Your task to perform on an android device: open app "DoorDash - Food Delivery" (install if not already installed) Image 0: 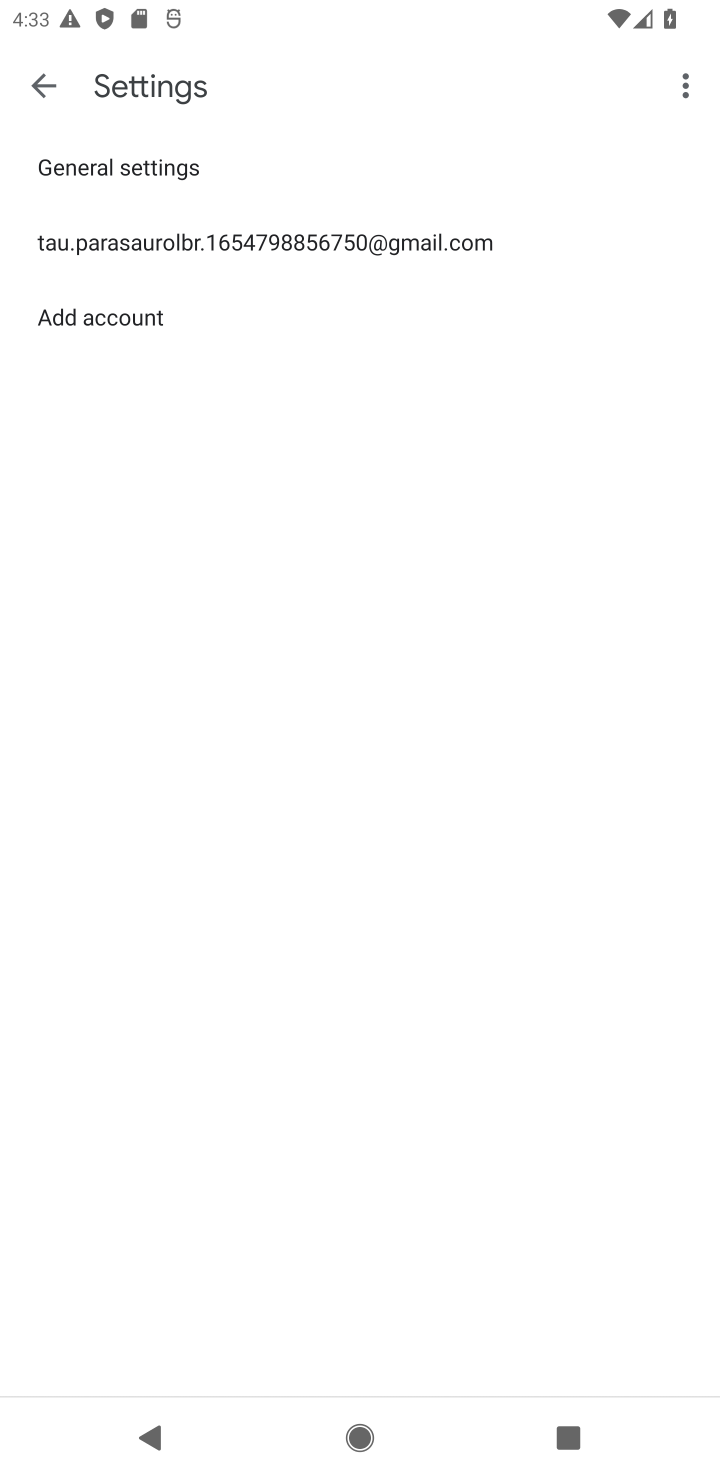
Step 0: press home button
Your task to perform on an android device: open app "DoorDash - Food Delivery" (install if not already installed) Image 1: 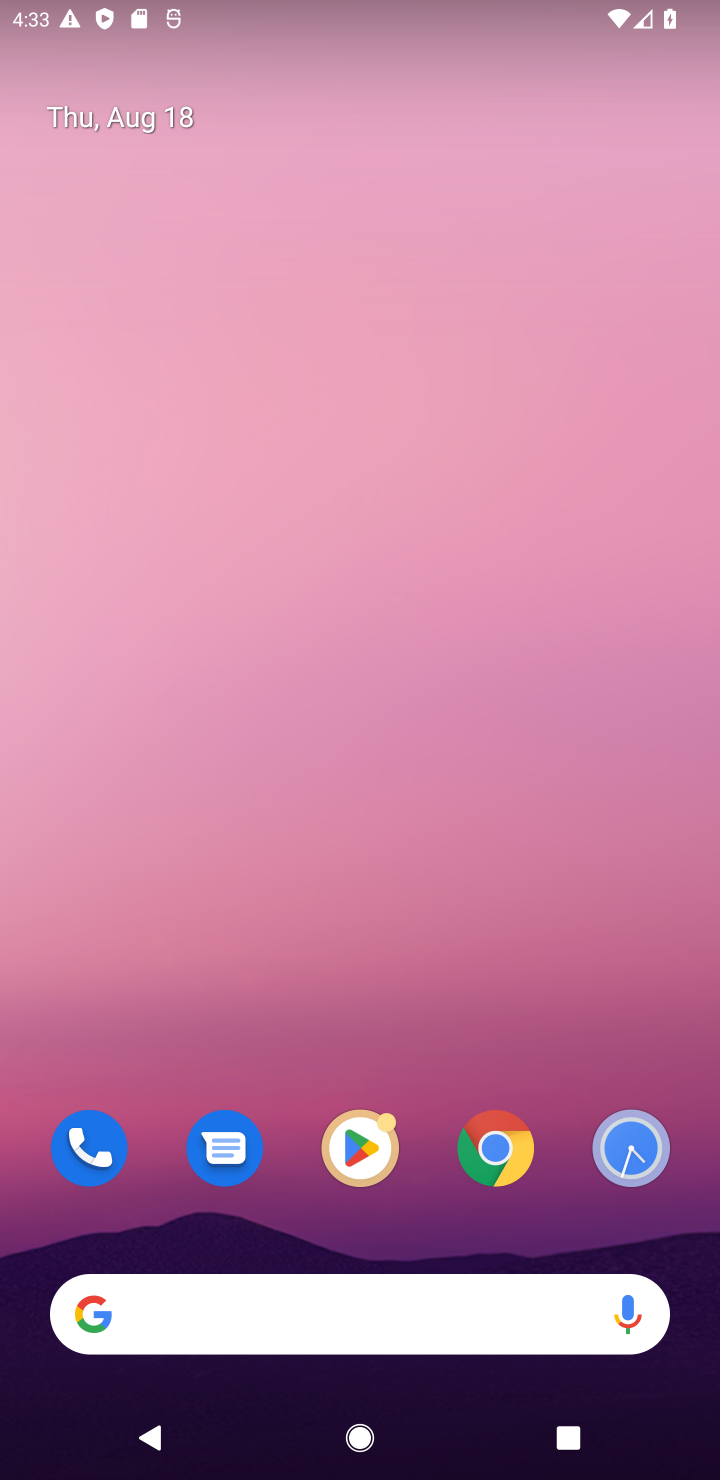
Step 1: drag from (524, 464) to (639, 0)
Your task to perform on an android device: open app "DoorDash - Food Delivery" (install if not already installed) Image 2: 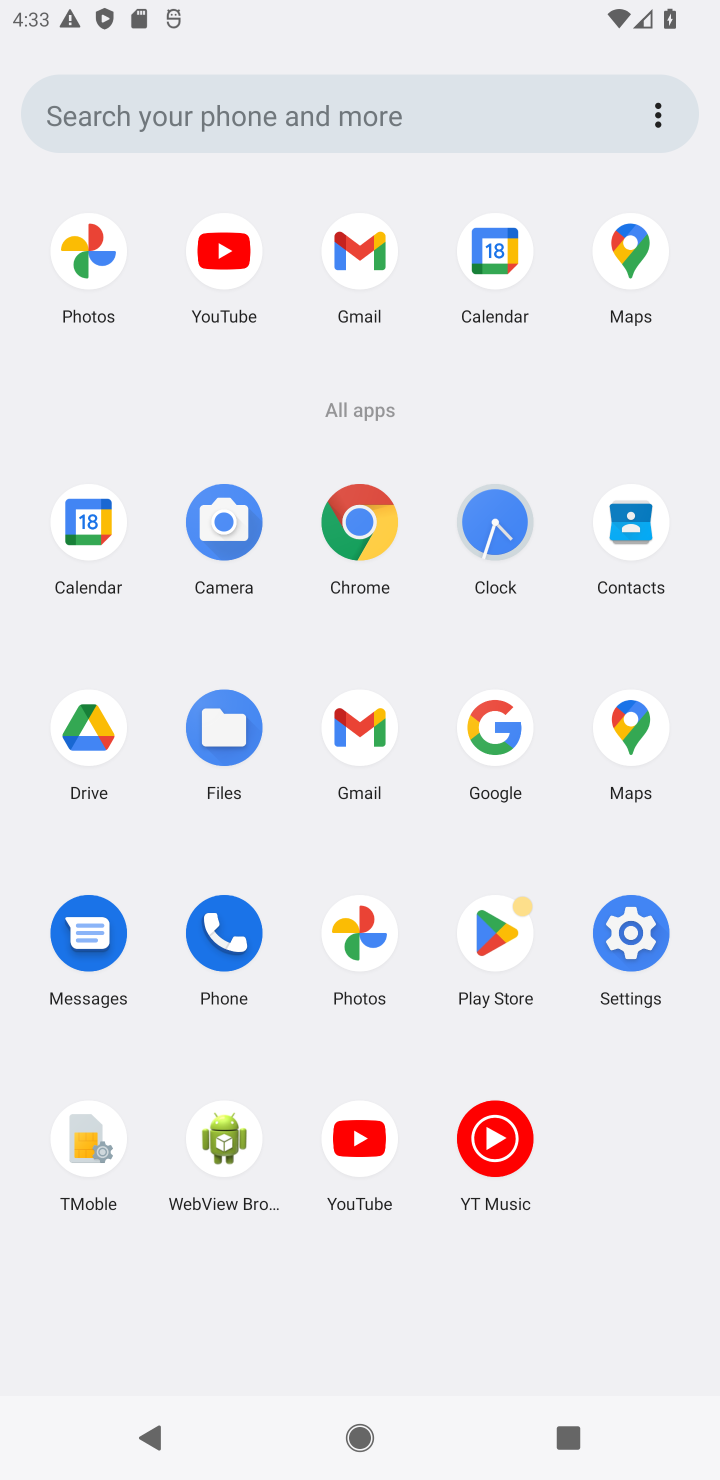
Step 2: click (502, 931)
Your task to perform on an android device: open app "DoorDash - Food Delivery" (install if not already installed) Image 3: 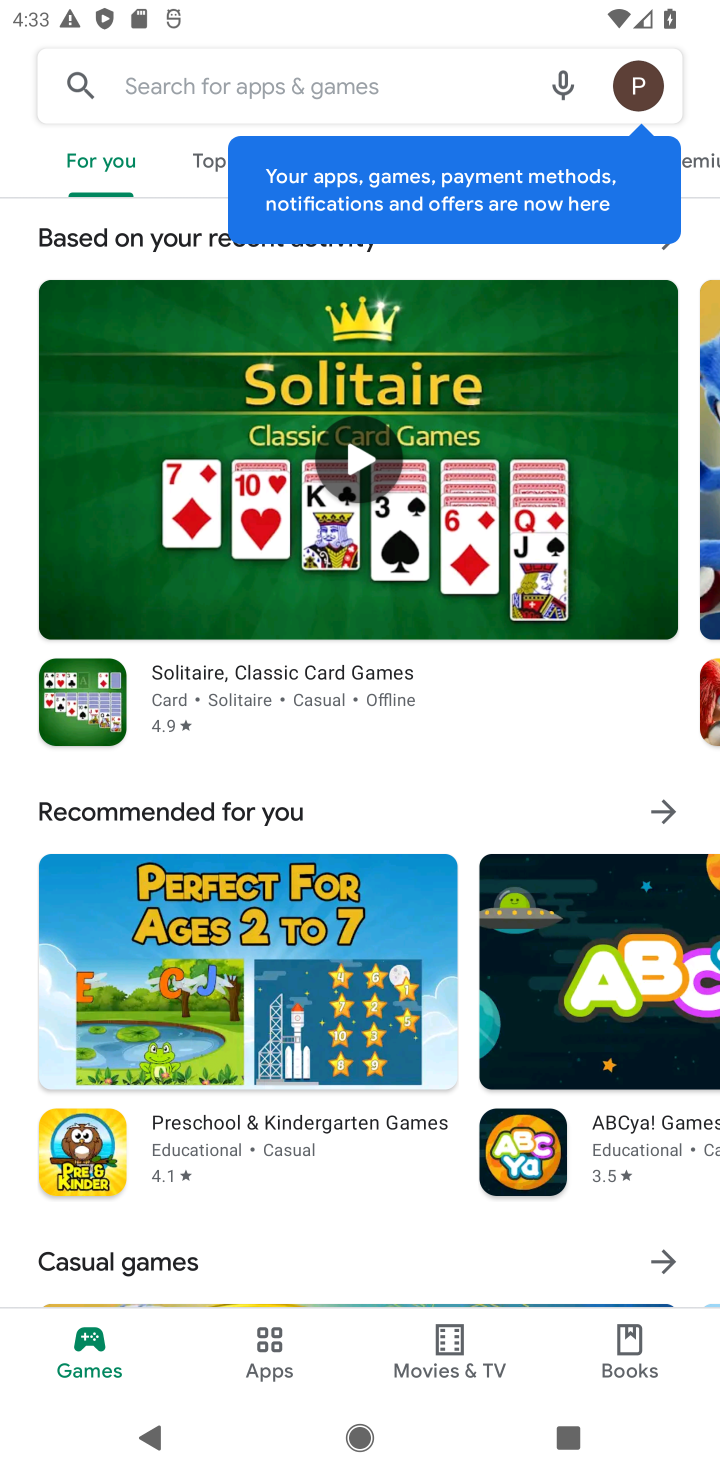
Step 3: click (216, 59)
Your task to perform on an android device: open app "DoorDash - Food Delivery" (install if not already installed) Image 4: 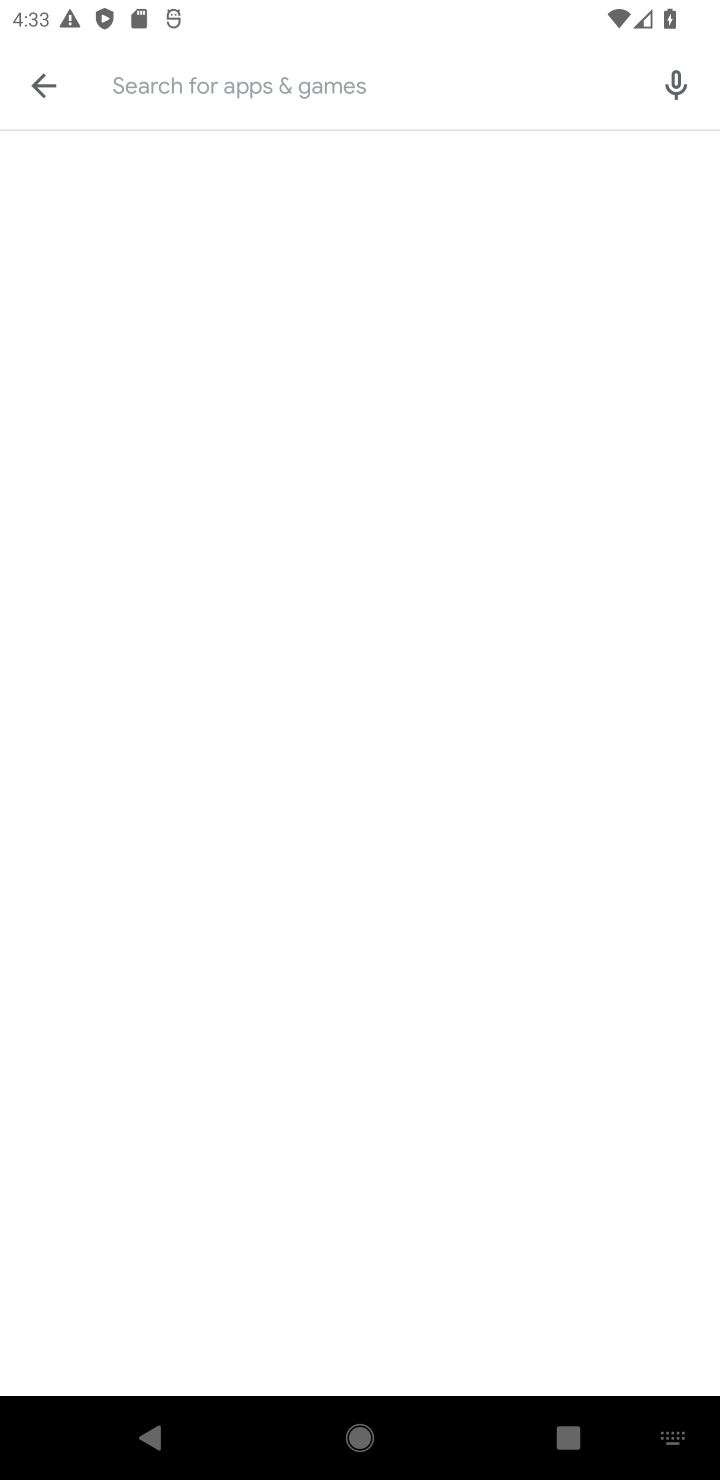
Step 4: type "DoorDash - Food Delivery"
Your task to perform on an android device: open app "DoorDash - Food Delivery" (install if not already installed) Image 5: 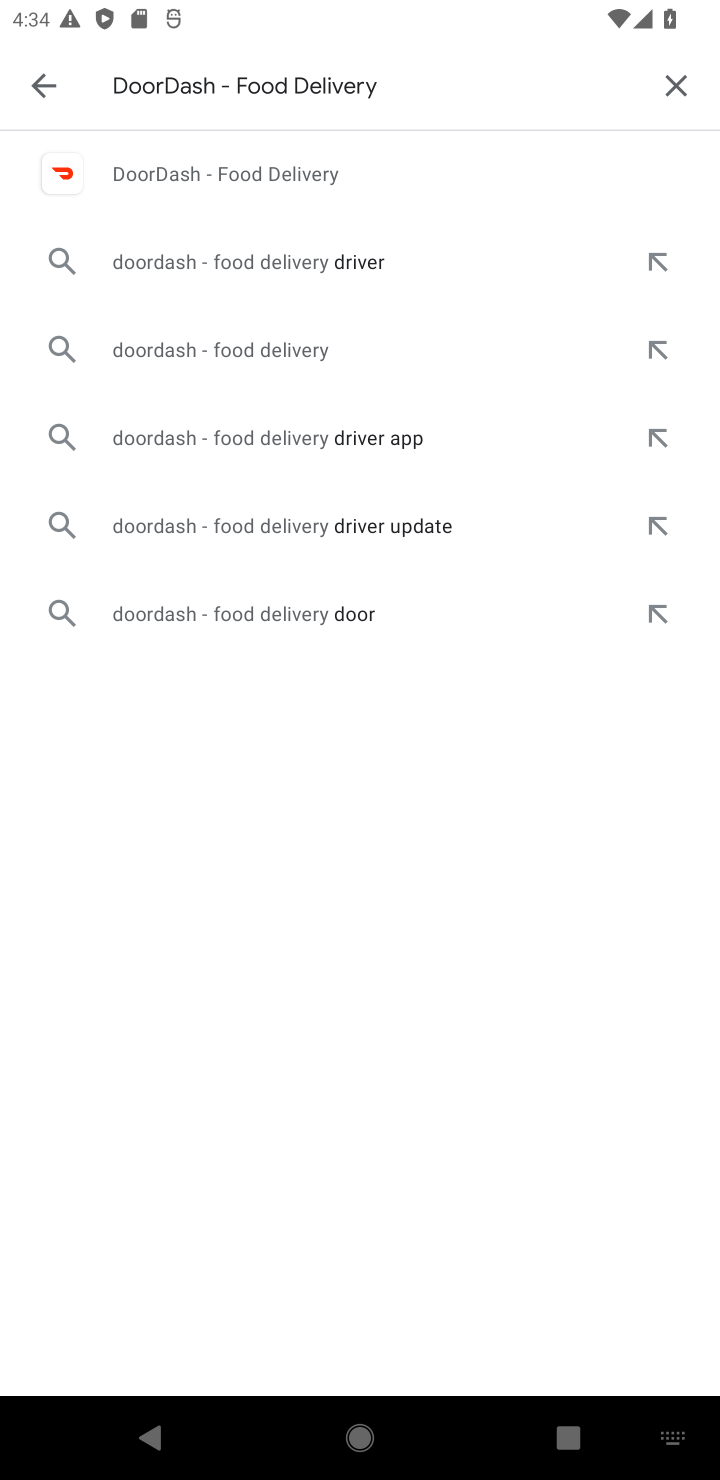
Step 5: click (289, 173)
Your task to perform on an android device: open app "DoorDash - Food Delivery" (install if not already installed) Image 6: 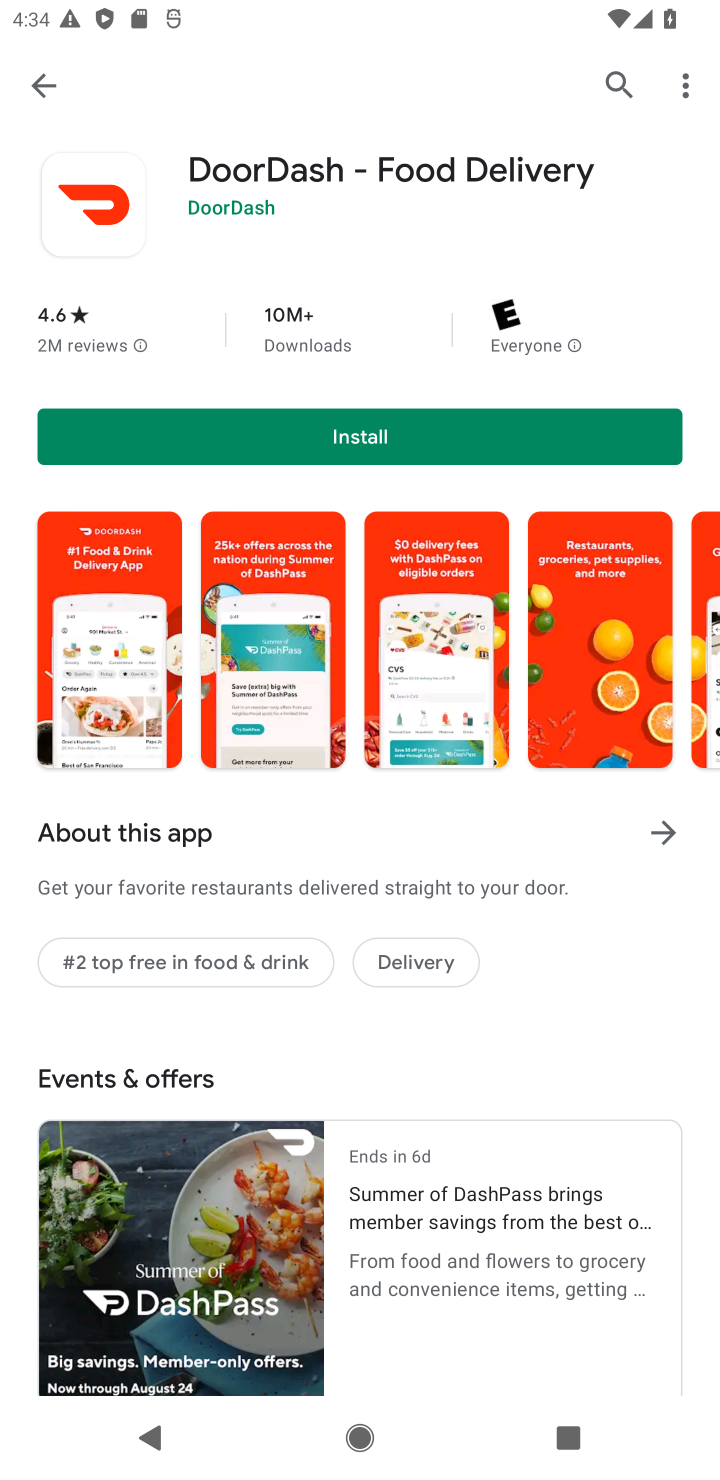
Step 6: click (350, 442)
Your task to perform on an android device: open app "DoorDash - Food Delivery" (install if not already installed) Image 7: 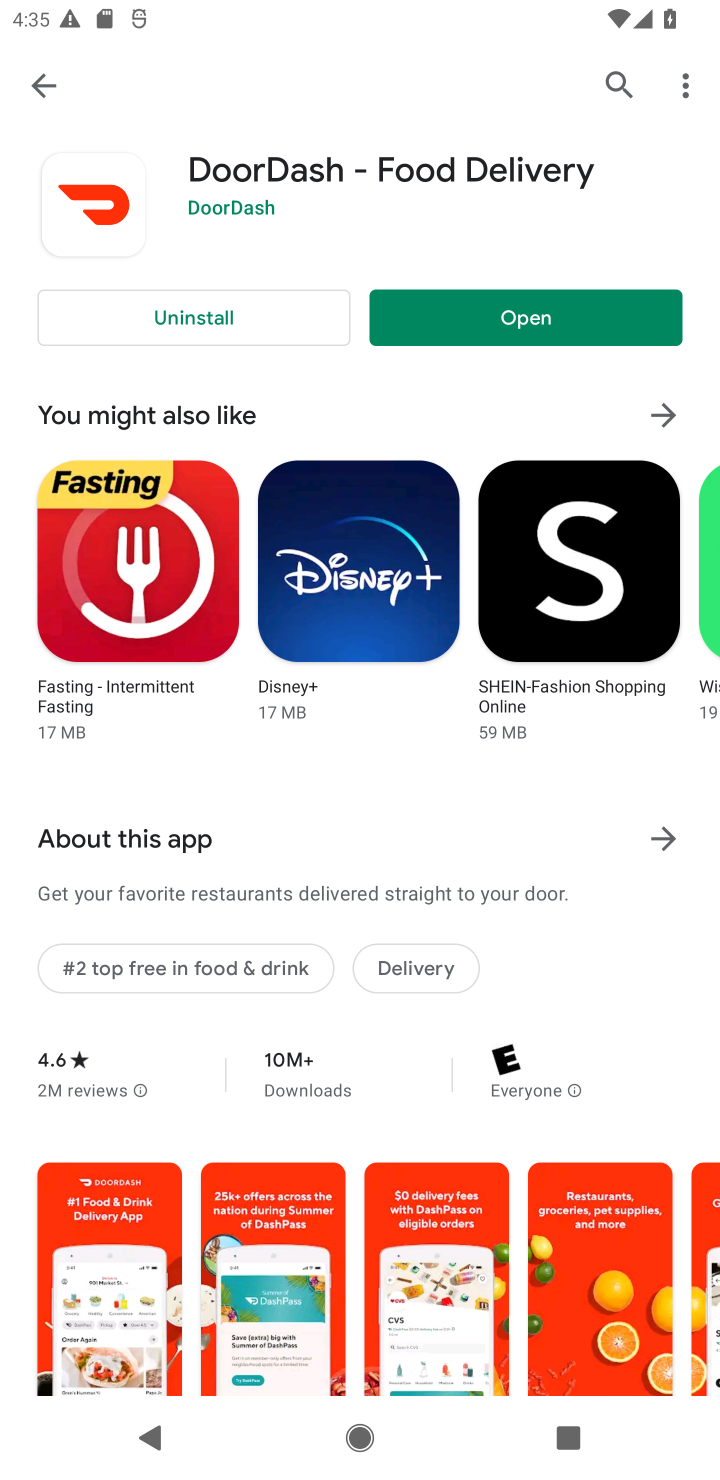
Step 7: click (499, 319)
Your task to perform on an android device: open app "DoorDash - Food Delivery" (install if not already installed) Image 8: 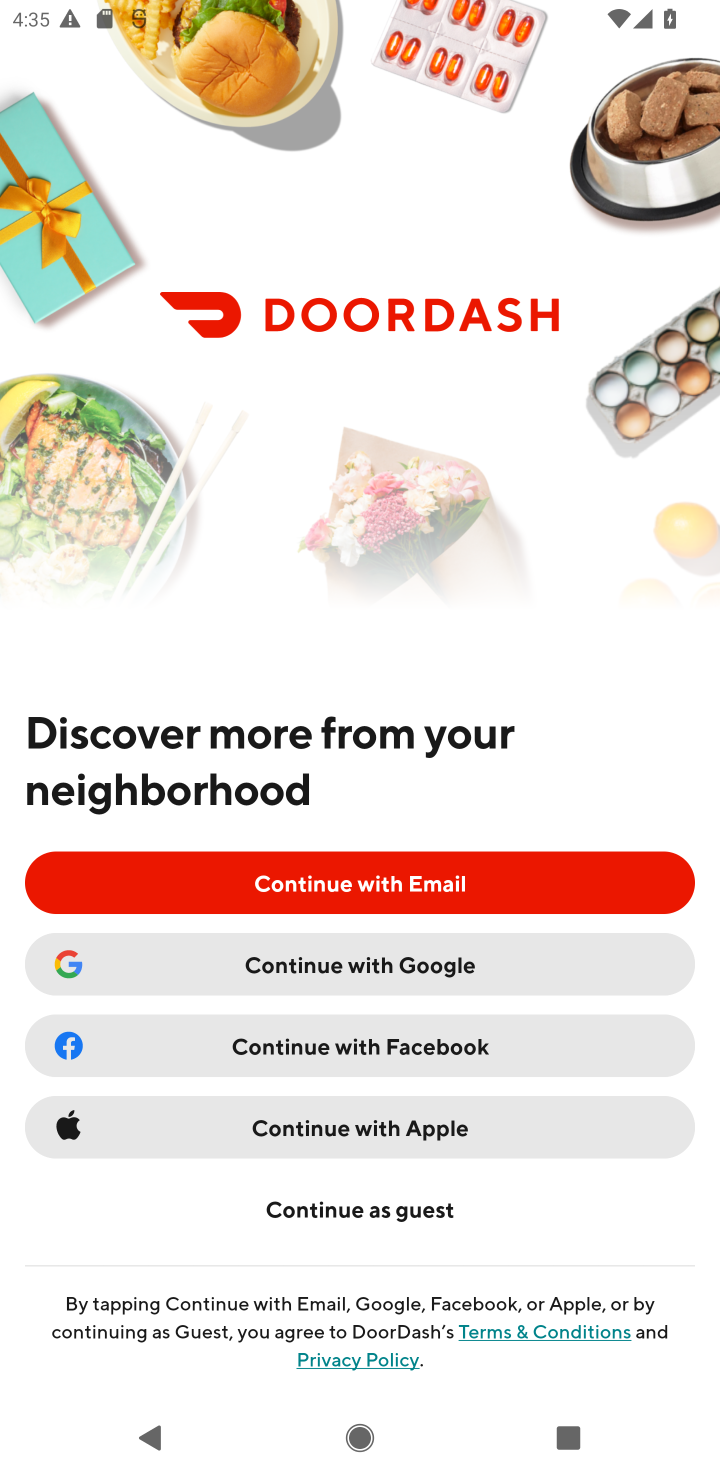
Step 8: task complete